Your task to perform on an android device: change the clock display to analog Image 0: 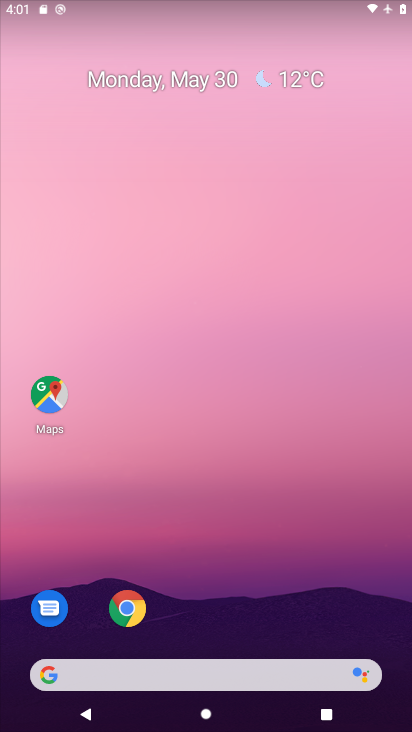
Step 0: drag from (242, 523) to (159, 18)
Your task to perform on an android device: change the clock display to analog Image 1: 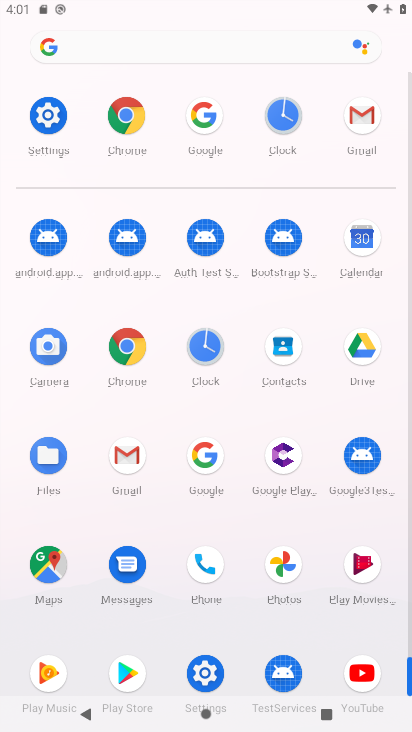
Step 1: click (286, 127)
Your task to perform on an android device: change the clock display to analog Image 2: 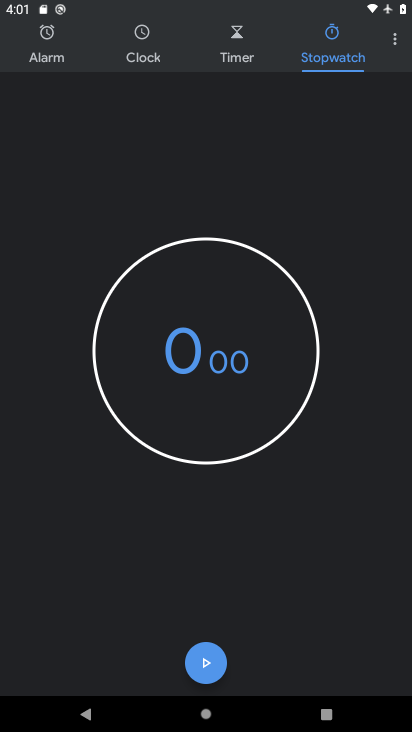
Step 2: click (393, 50)
Your task to perform on an android device: change the clock display to analog Image 3: 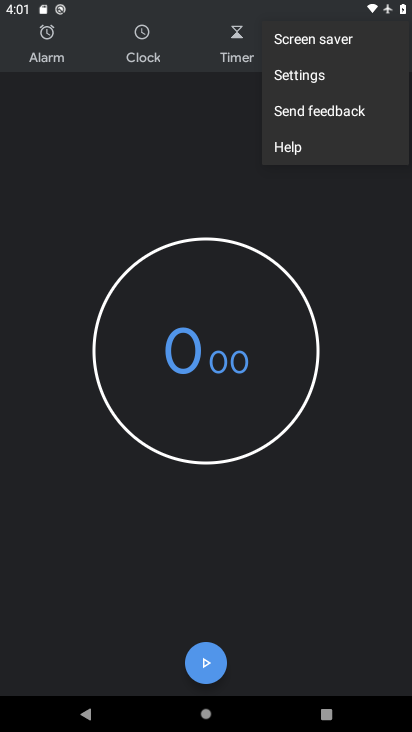
Step 3: click (307, 81)
Your task to perform on an android device: change the clock display to analog Image 4: 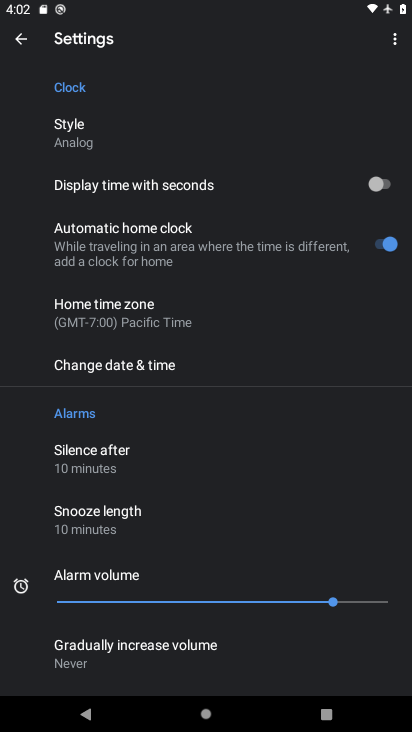
Step 4: click (90, 135)
Your task to perform on an android device: change the clock display to analog Image 5: 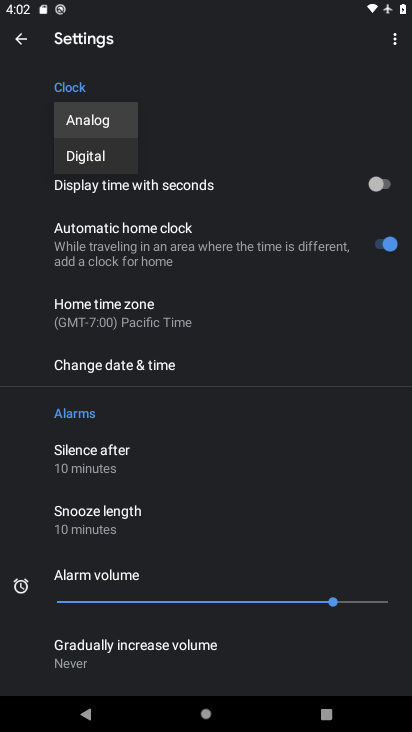
Step 5: task complete